Your task to perform on an android device: open chrome privacy settings Image 0: 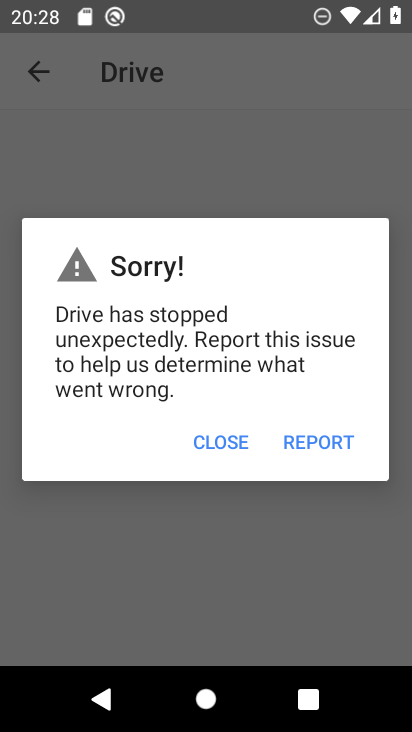
Step 0: press home button
Your task to perform on an android device: open chrome privacy settings Image 1: 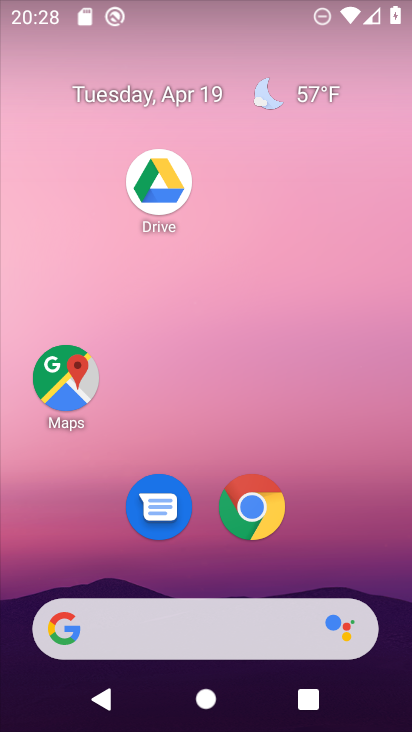
Step 1: click (280, 524)
Your task to perform on an android device: open chrome privacy settings Image 2: 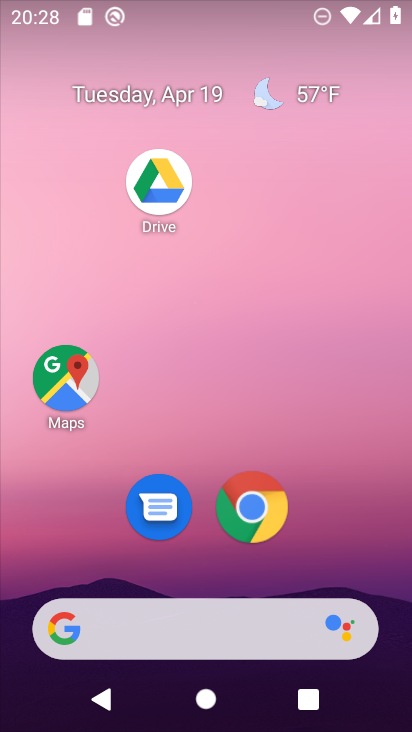
Step 2: click (269, 510)
Your task to perform on an android device: open chrome privacy settings Image 3: 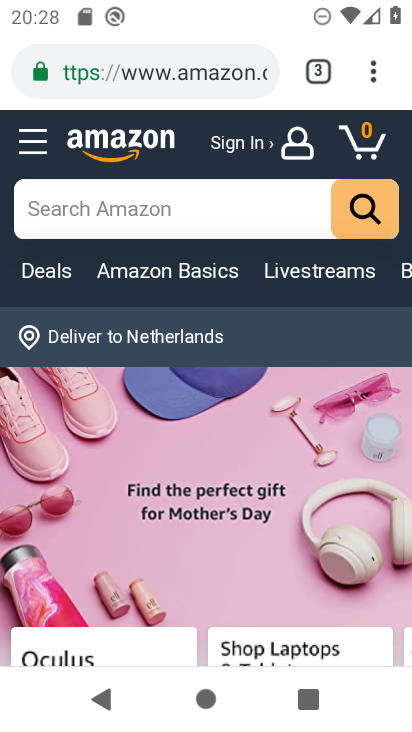
Step 3: drag from (369, 66) to (301, 503)
Your task to perform on an android device: open chrome privacy settings Image 4: 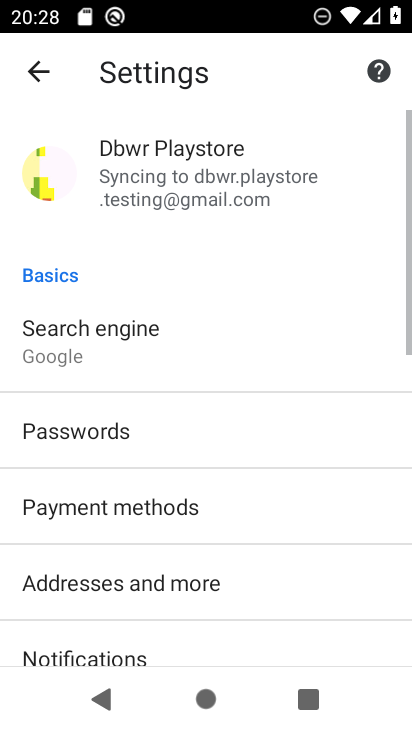
Step 4: drag from (259, 577) to (294, 240)
Your task to perform on an android device: open chrome privacy settings Image 5: 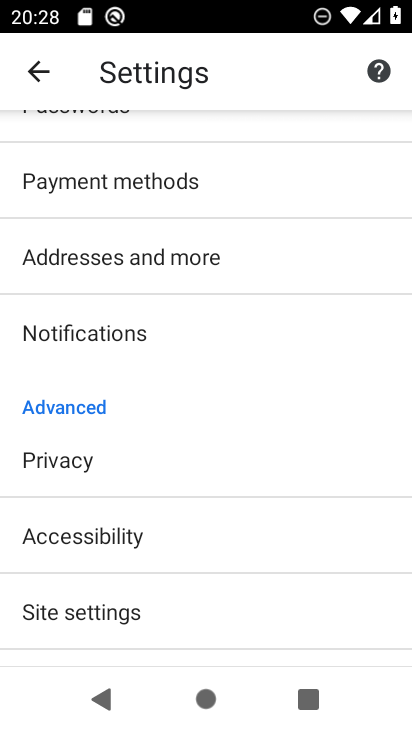
Step 5: click (146, 468)
Your task to perform on an android device: open chrome privacy settings Image 6: 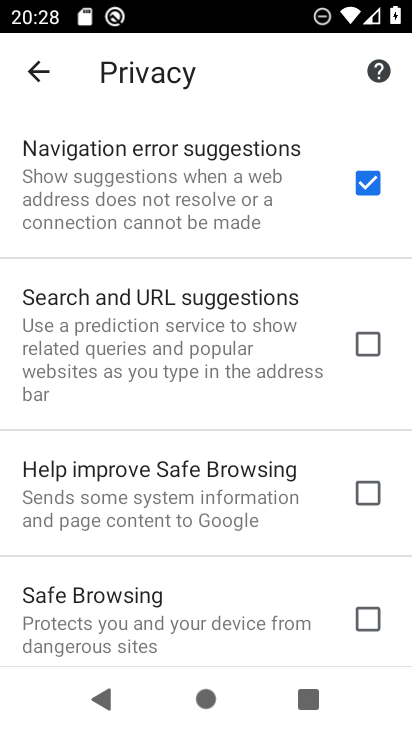
Step 6: task complete